Your task to perform on an android device: Open Chrome and go to the settings page Image 0: 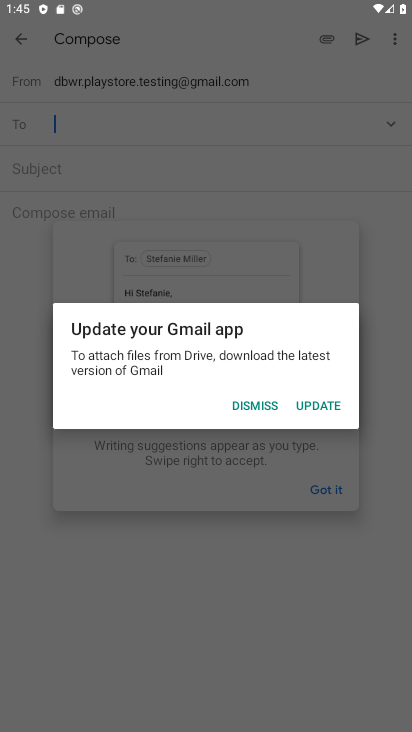
Step 0: press home button
Your task to perform on an android device: Open Chrome and go to the settings page Image 1: 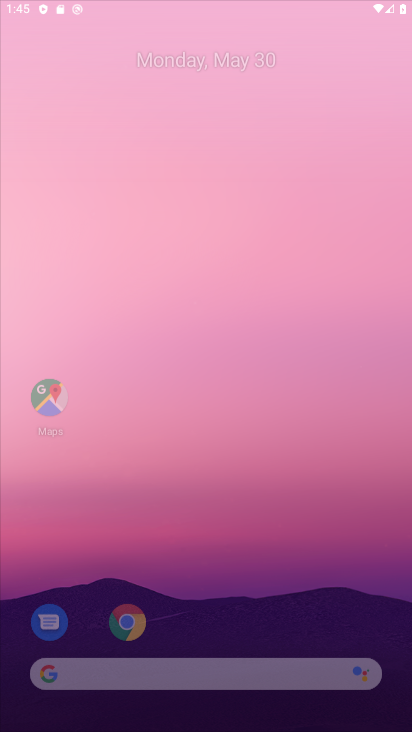
Step 1: press home button
Your task to perform on an android device: Open Chrome and go to the settings page Image 2: 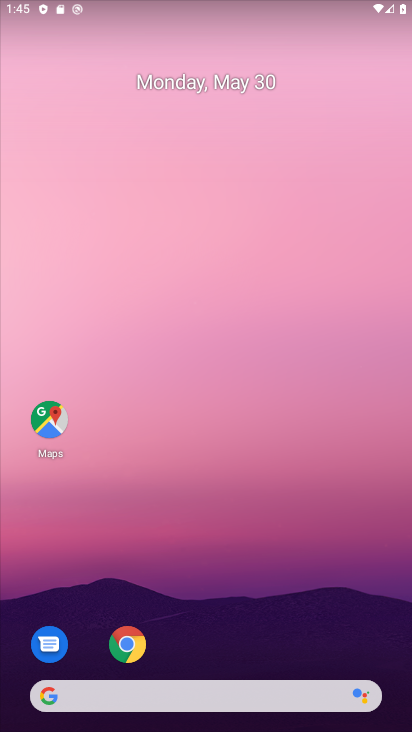
Step 2: click (134, 640)
Your task to perform on an android device: Open Chrome and go to the settings page Image 3: 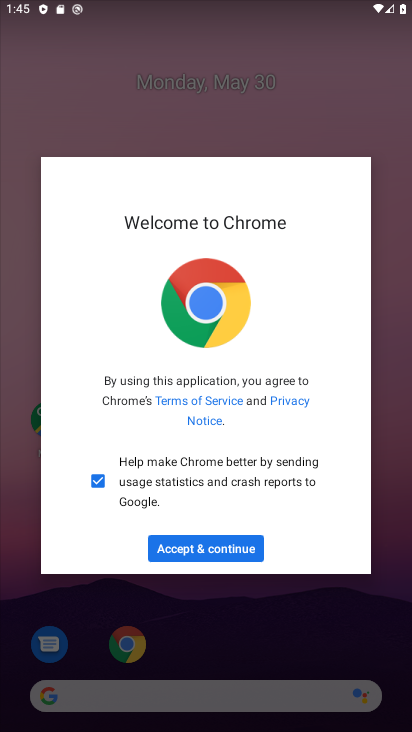
Step 3: click (218, 548)
Your task to perform on an android device: Open Chrome and go to the settings page Image 4: 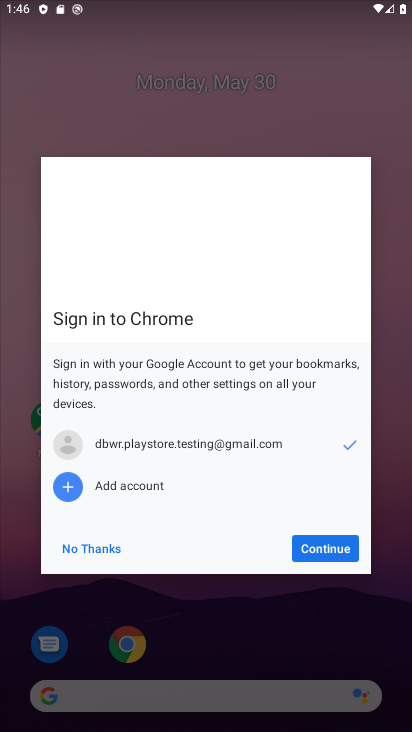
Step 4: click (313, 552)
Your task to perform on an android device: Open Chrome and go to the settings page Image 5: 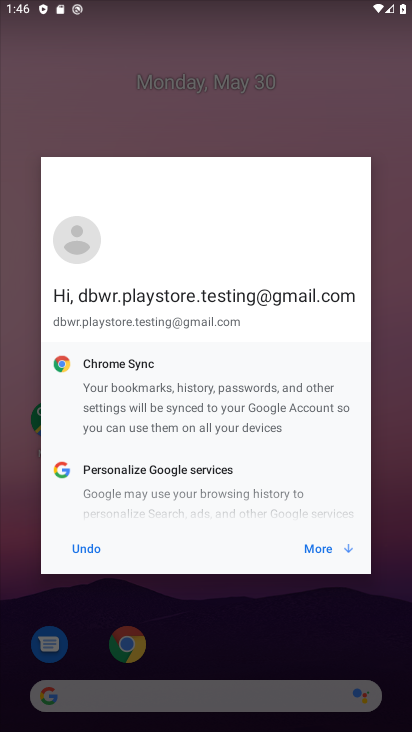
Step 5: click (314, 552)
Your task to perform on an android device: Open Chrome and go to the settings page Image 6: 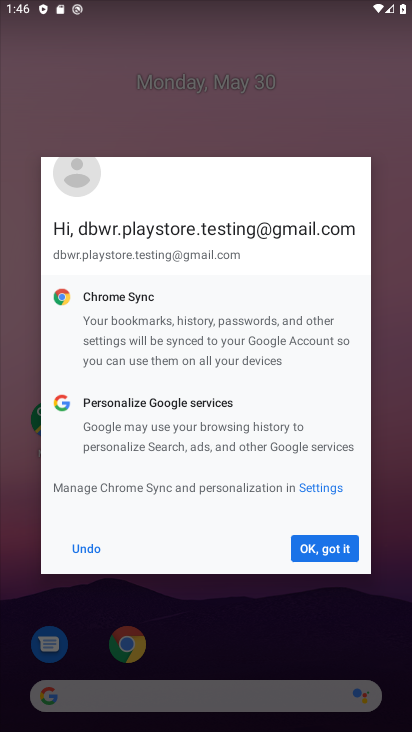
Step 6: click (314, 552)
Your task to perform on an android device: Open Chrome and go to the settings page Image 7: 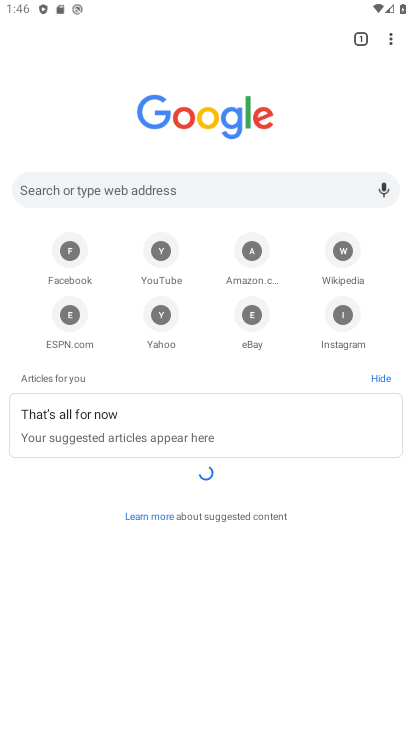
Step 7: task complete